Your task to perform on an android device: change the clock style Image 0: 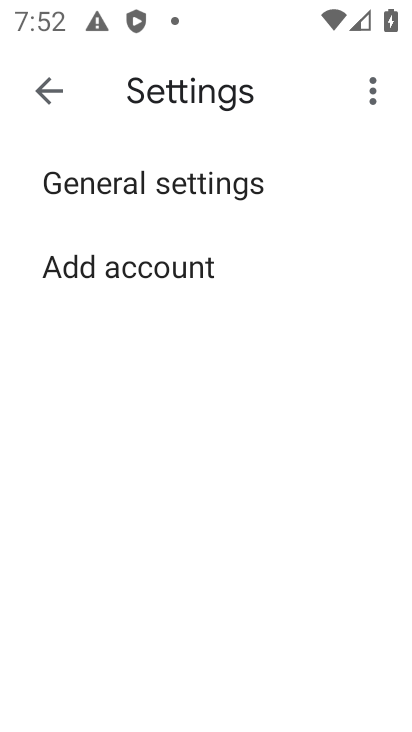
Step 0: press home button
Your task to perform on an android device: change the clock style Image 1: 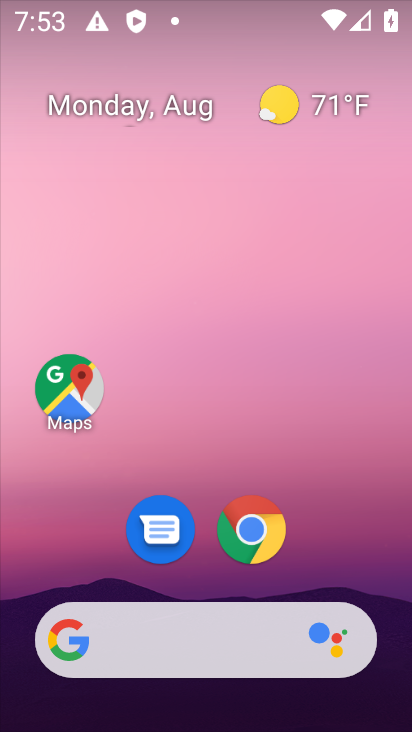
Step 1: drag from (337, 603) to (238, 113)
Your task to perform on an android device: change the clock style Image 2: 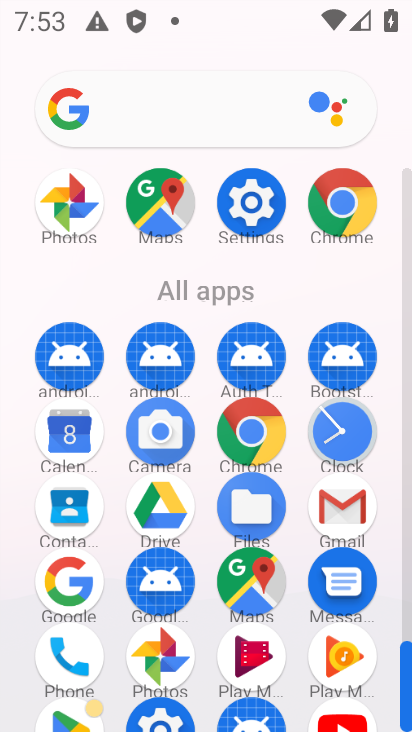
Step 2: click (349, 434)
Your task to perform on an android device: change the clock style Image 3: 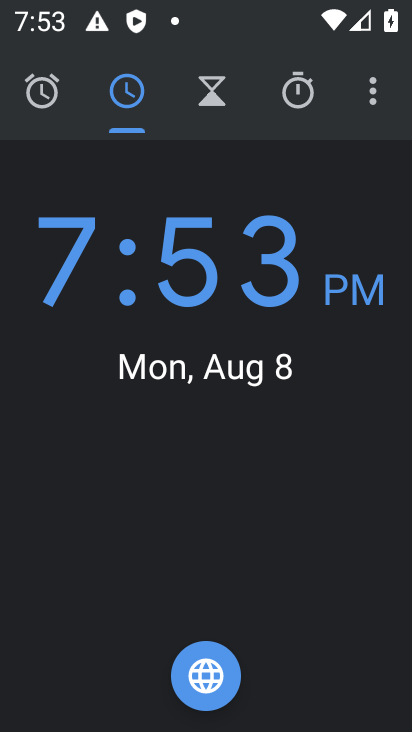
Step 3: click (379, 94)
Your task to perform on an android device: change the clock style Image 4: 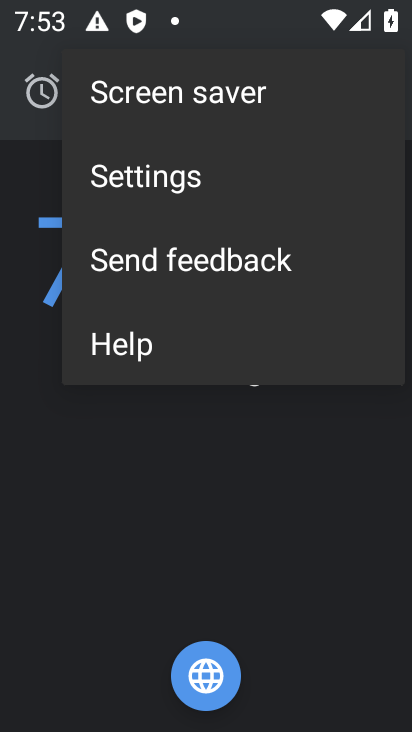
Step 4: click (295, 179)
Your task to perform on an android device: change the clock style Image 5: 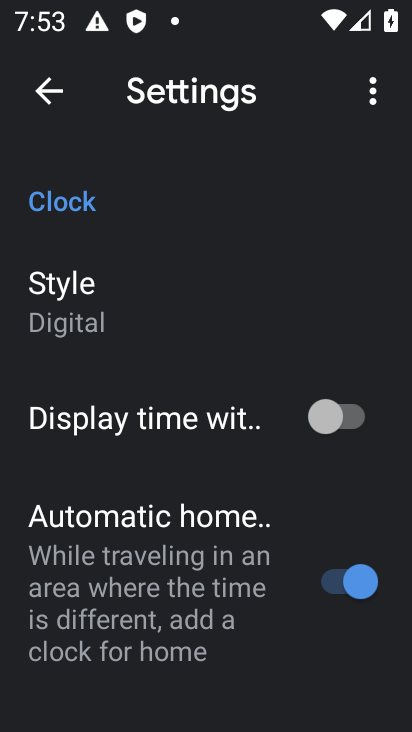
Step 5: click (138, 291)
Your task to perform on an android device: change the clock style Image 6: 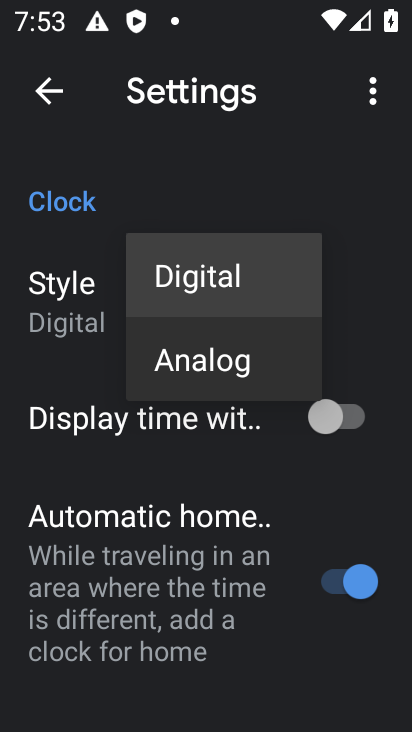
Step 6: click (198, 368)
Your task to perform on an android device: change the clock style Image 7: 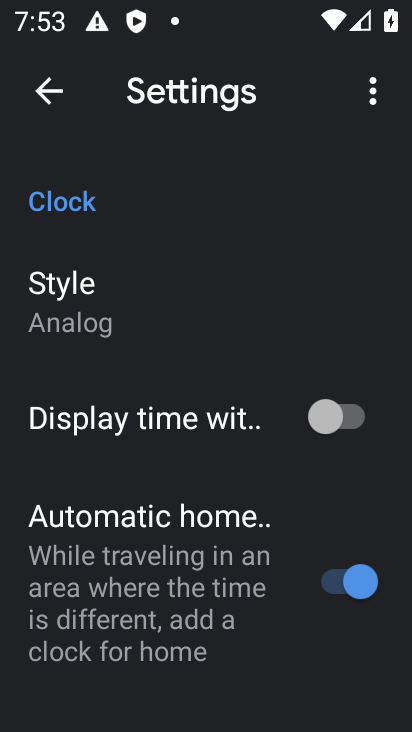
Step 7: task complete